Your task to perform on an android device: open app "DoorDash - Dasher" (install if not already installed) Image 0: 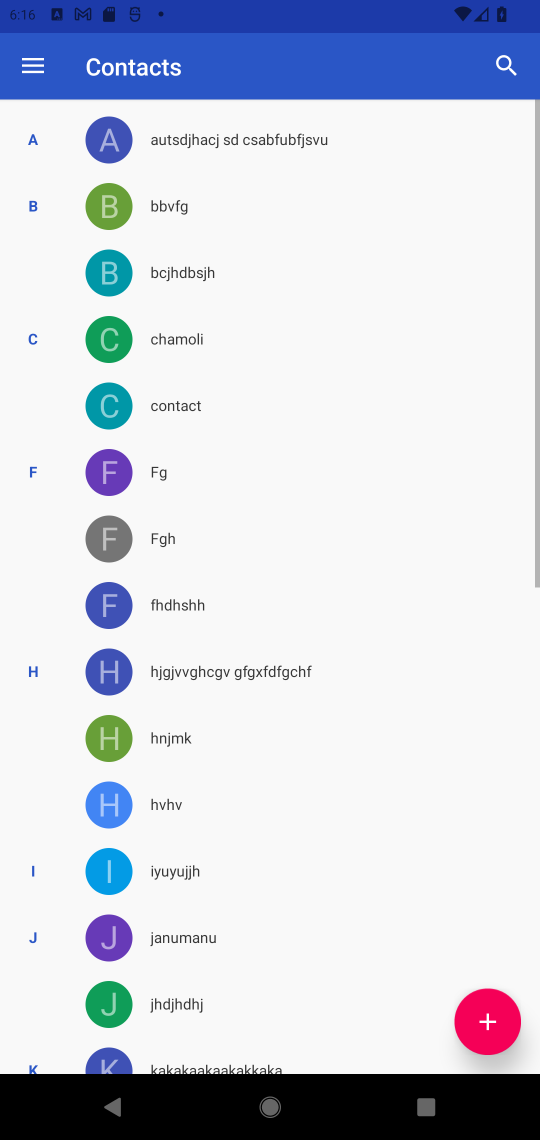
Step 0: press back button
Your task to perform on an android device: open app "DoorDash - Dasher" (install if not already installed) Image 1: 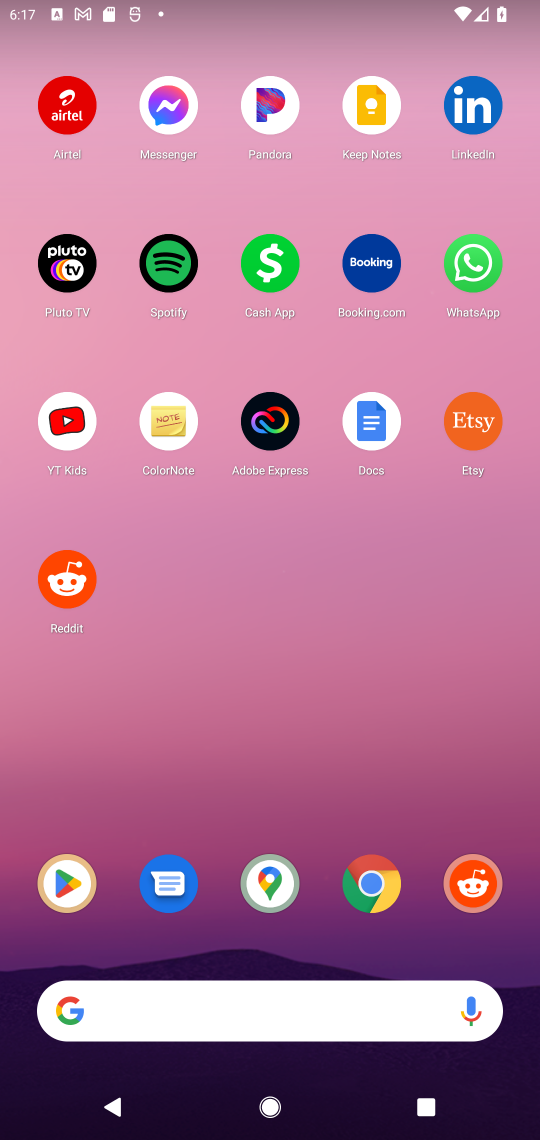
Step 1: click (81, 881)
Your task to perform on an android device: open app "DoorDash - Dasher" (install if not already installed) Image 2: 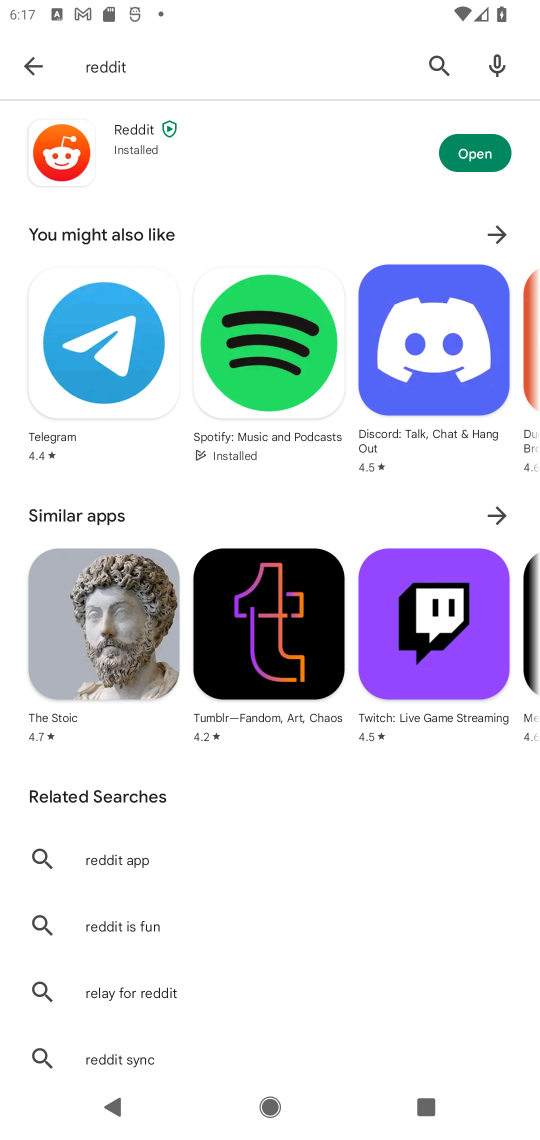
Step 2: click (30, 52)
Your task to perform on an android device: open app "DoorDash - Dasher" (install if not already installed) Image 3: 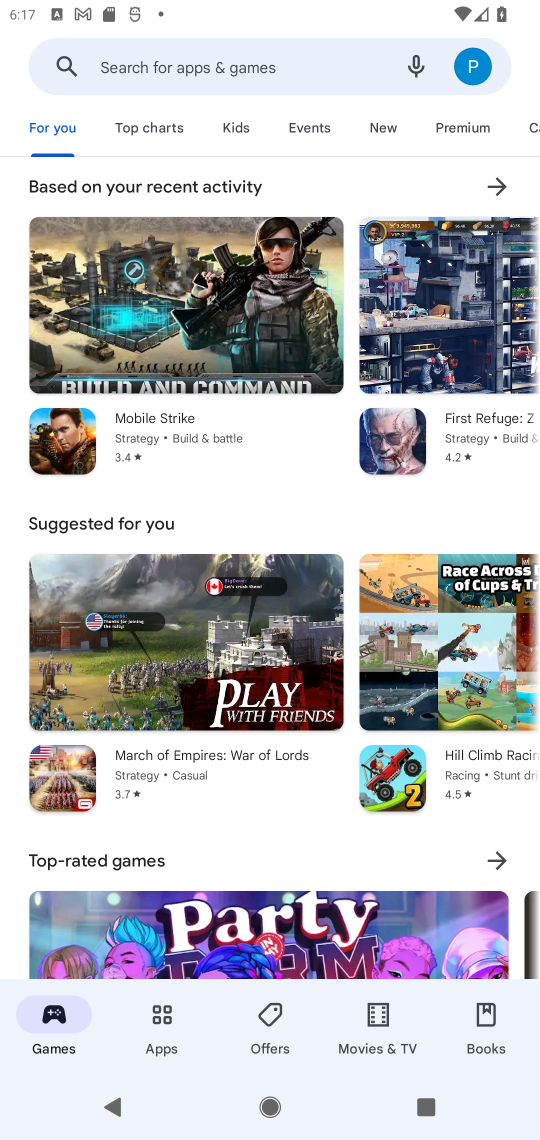
Step 3: click (187, 63)
Your task to perform on an android device: open app "DoorDash - Dasher" (install if not already installed) Image 4: 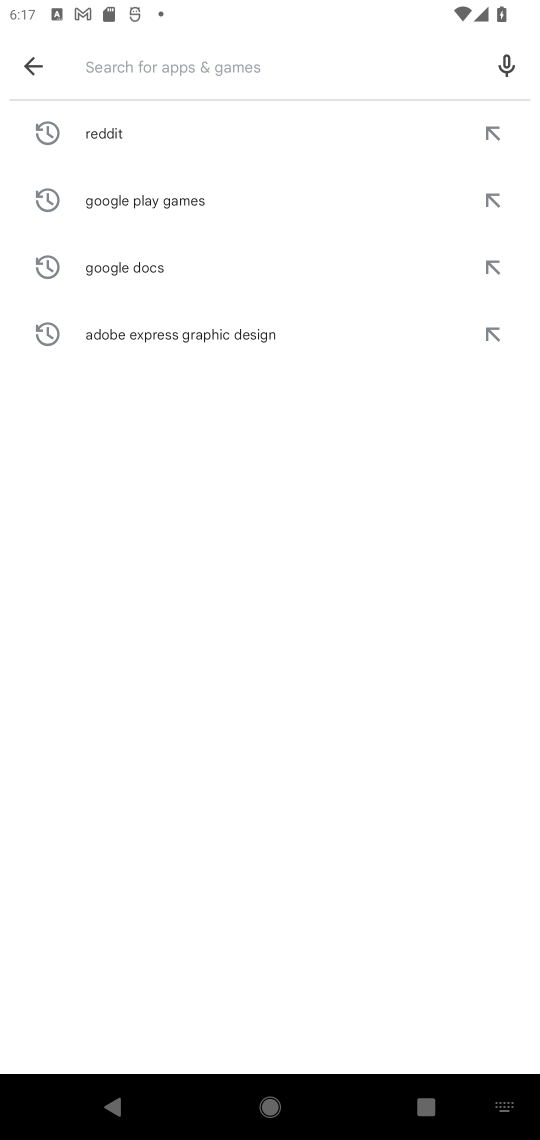
Step 4: type "DoorDash - Dasher"
Your task to perform on an android device: open app "DoorDash - Dasher" (install if not already installed) Image 5: 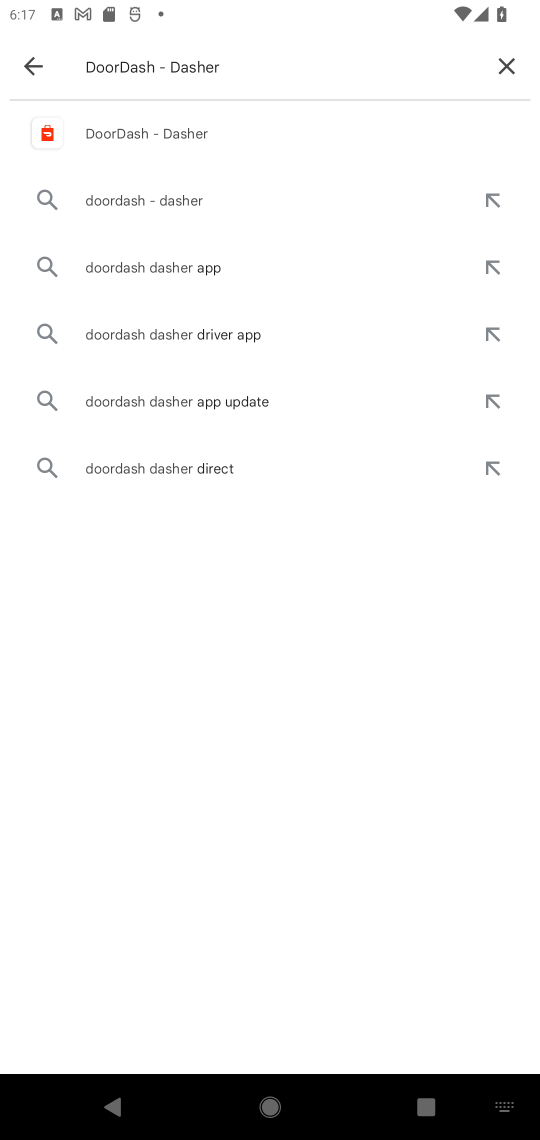
Step 5: click (122, 137)
Your task to perform on an android device: open app "DoorDash - Dasher" (install if not already installed) Image 6: 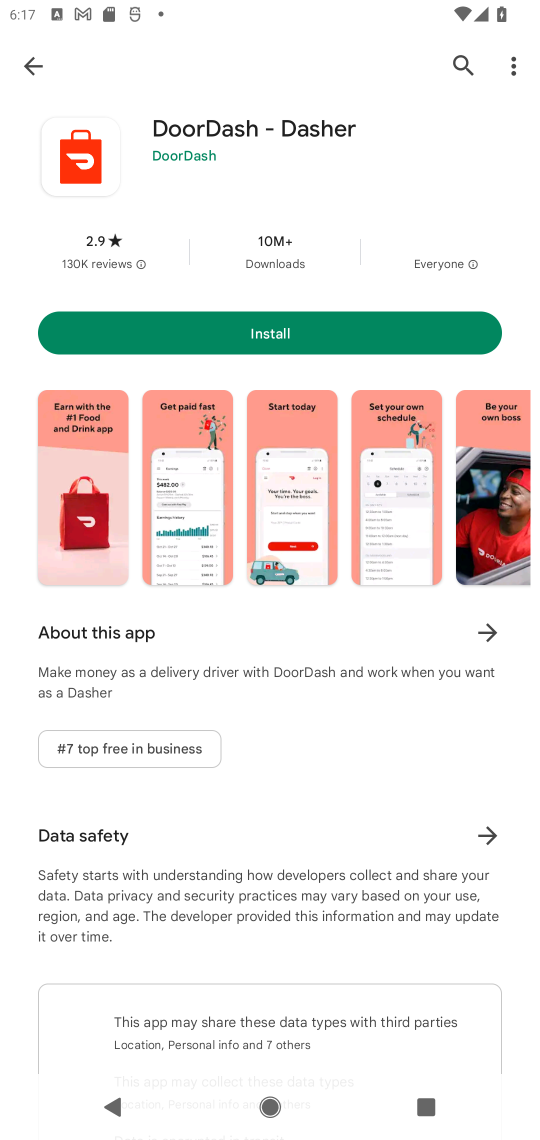
Step 6: click (283, 339)
Your task to perform on an android device: open app "DoorDash - Dasher" (install if not already installed) Image 7: 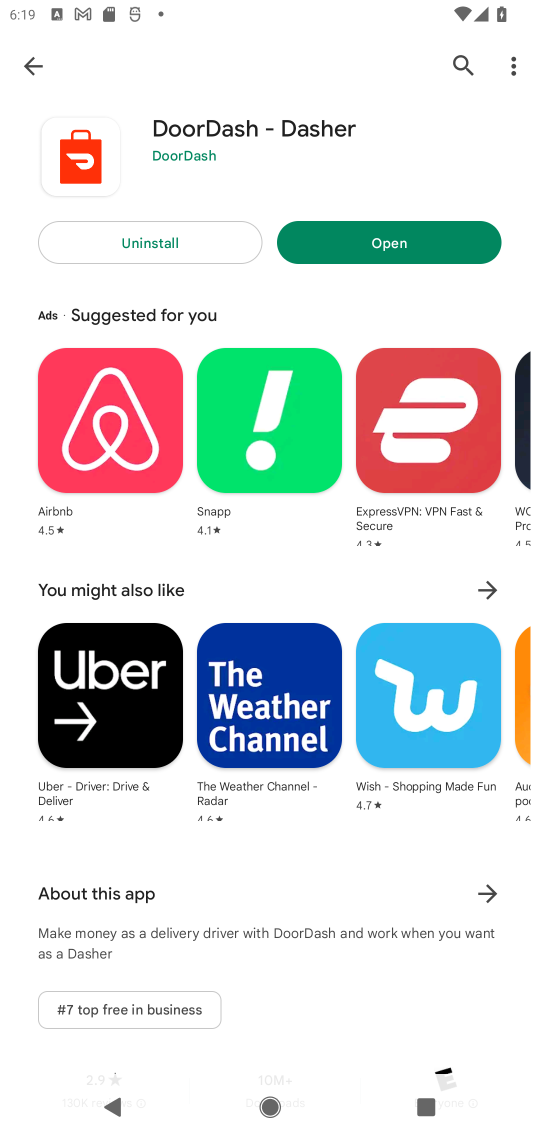
Step 7: click (378, 258)
Your task to perform on an android device: open app "DoorDash - Dasher" (install if not already installed) Image 8: 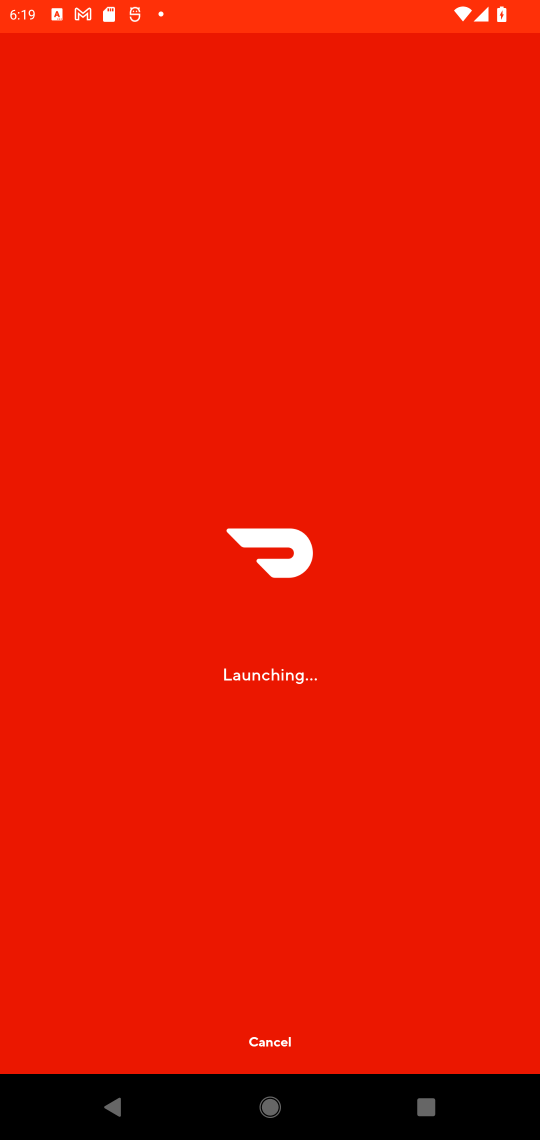
Step 8: task complete